Your task to perform on an android device: Open Reddit.com Image 0: 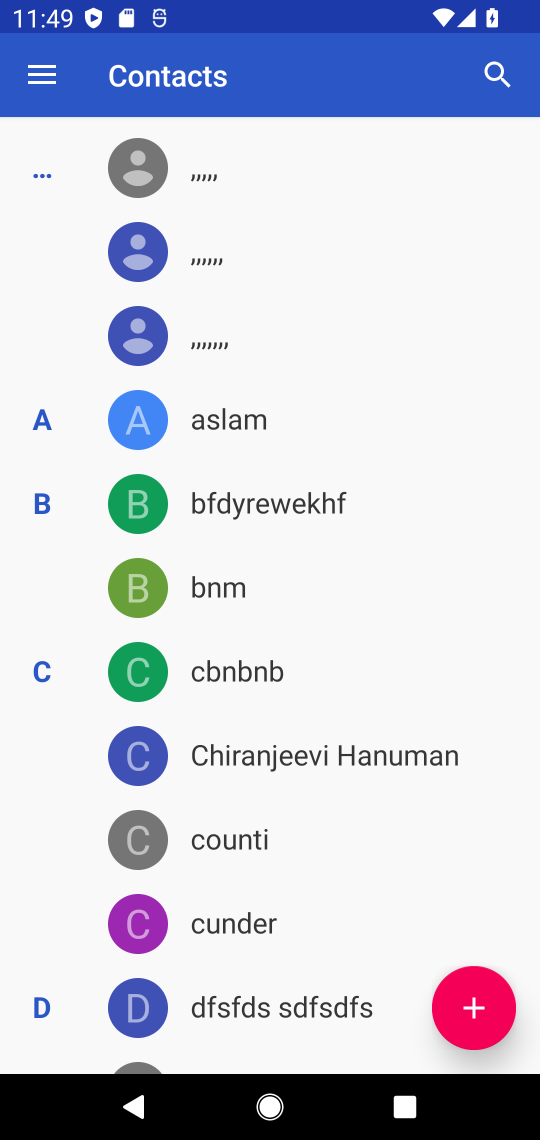
Step 0: press home button
Your task to perform on an android device: Open Reddit.com Image 1: 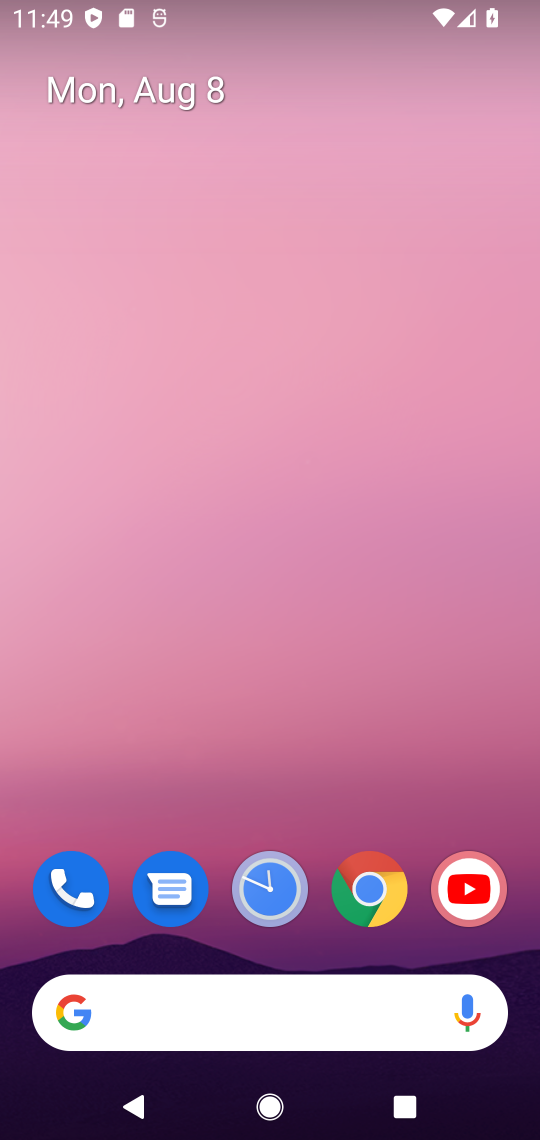
Step 1: click (368, 909)
Your task to perform on an android device: Open Reddit.com Image 2: 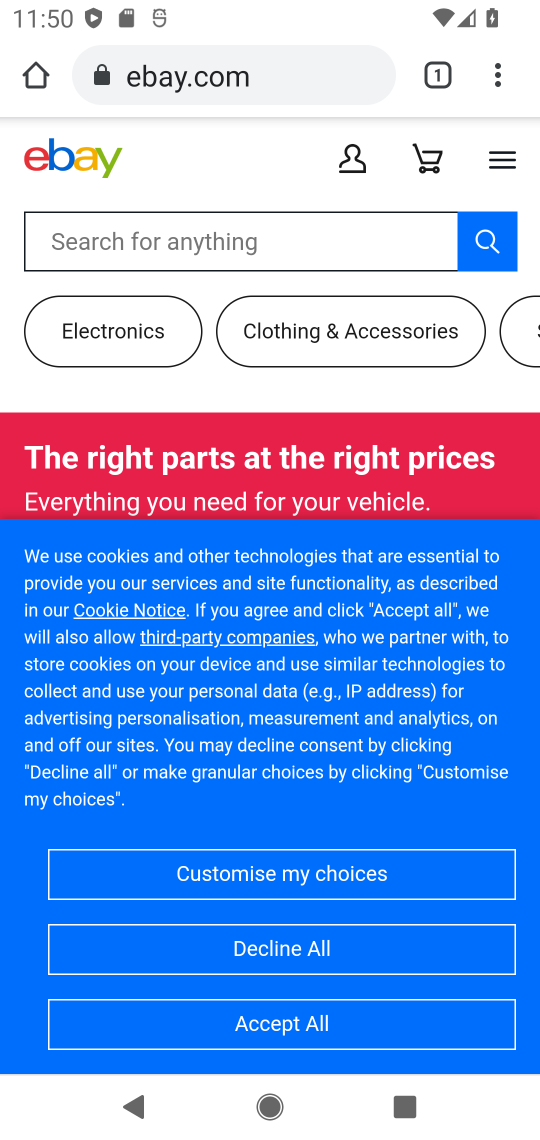
Step 2: click (239, 78)
Your task to perform on an android device: Open Reddit.com Image 3: 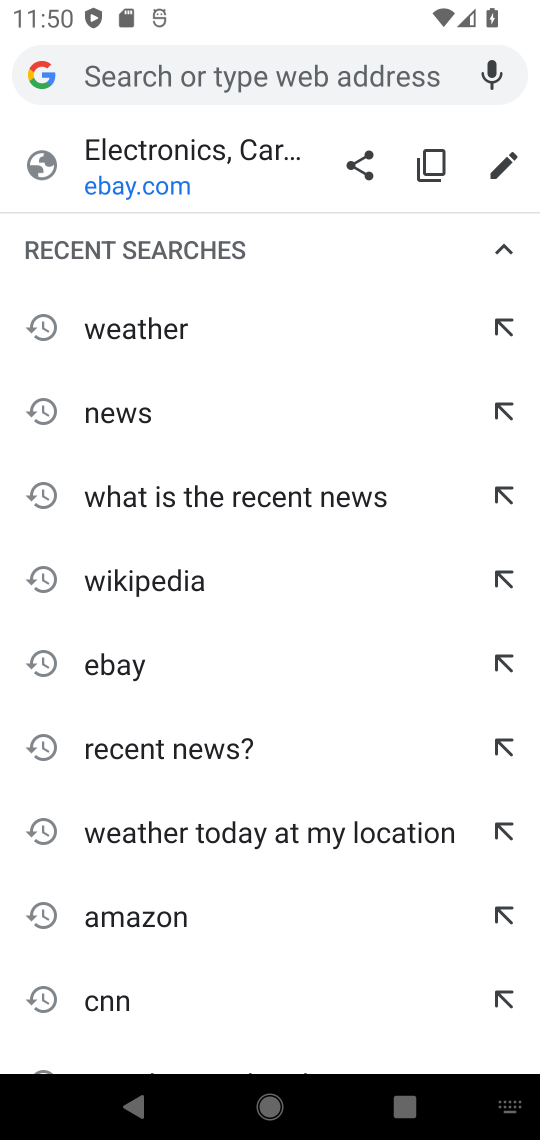
Step 3: type "reddit.com"
Your task to perform on an android device: Open Reddit.com Image 4: 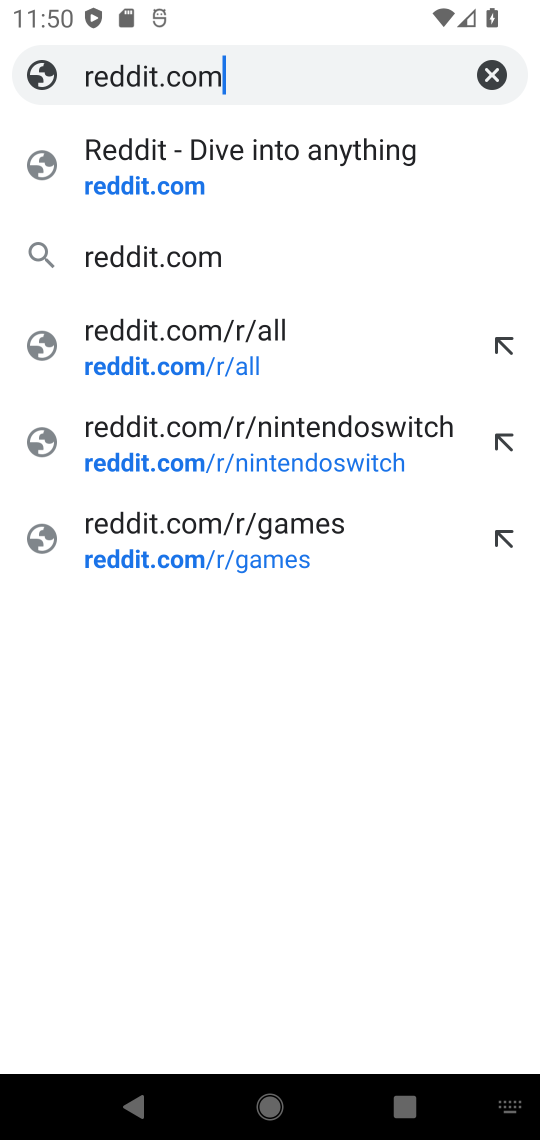
Step 4: click (293, 166)
Your task to perform on an android device: Open Reddit.com Image 5: 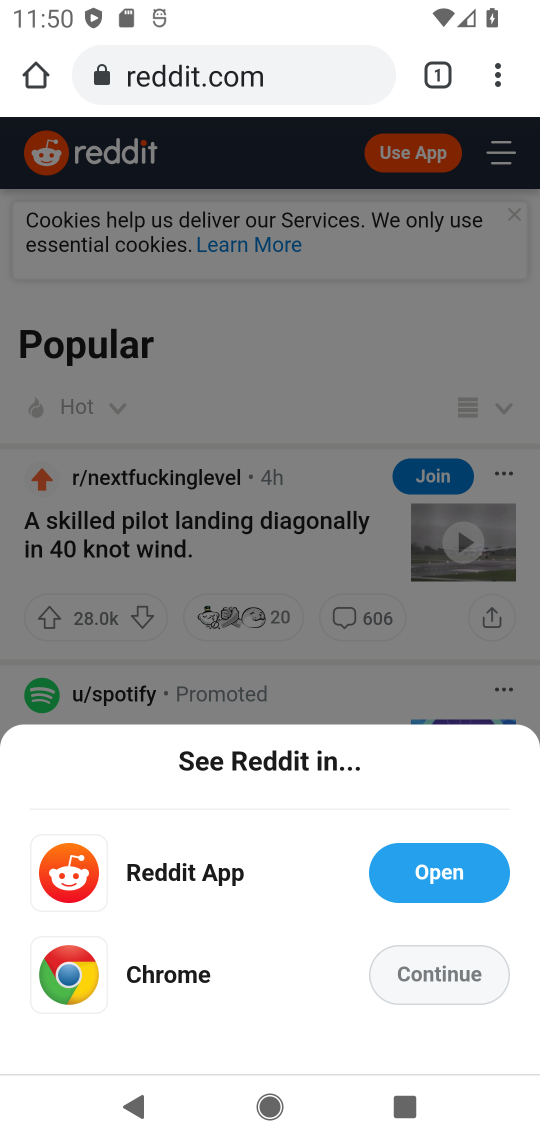
Step 5: click (464, 985)
Your task to perform on an android device: Open Reddit.com Image 6: 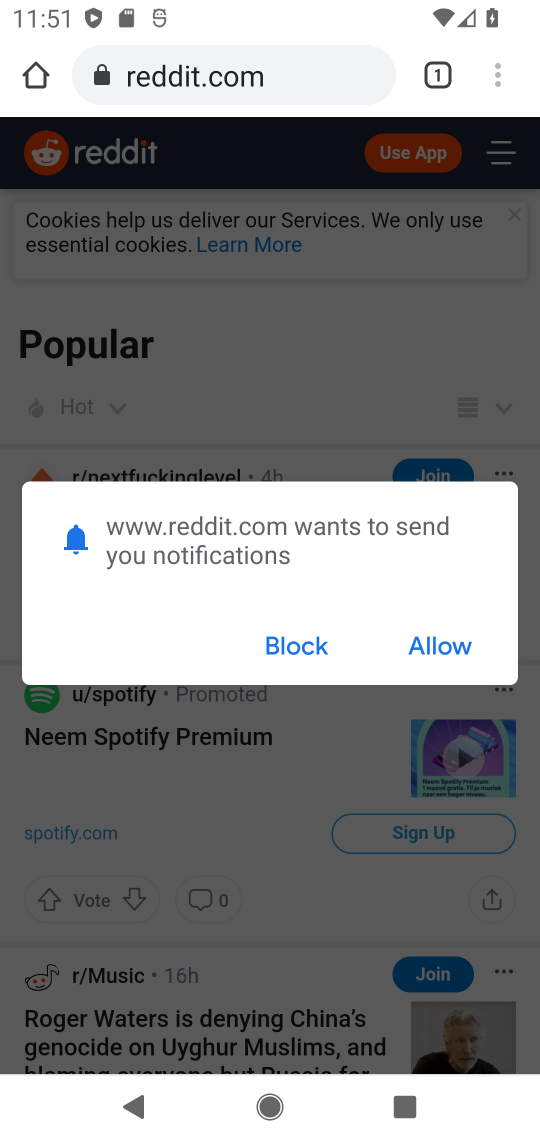
Step 6: click (462, 648)
Your task to perform on an android device: Open Reddit.com Image 7: 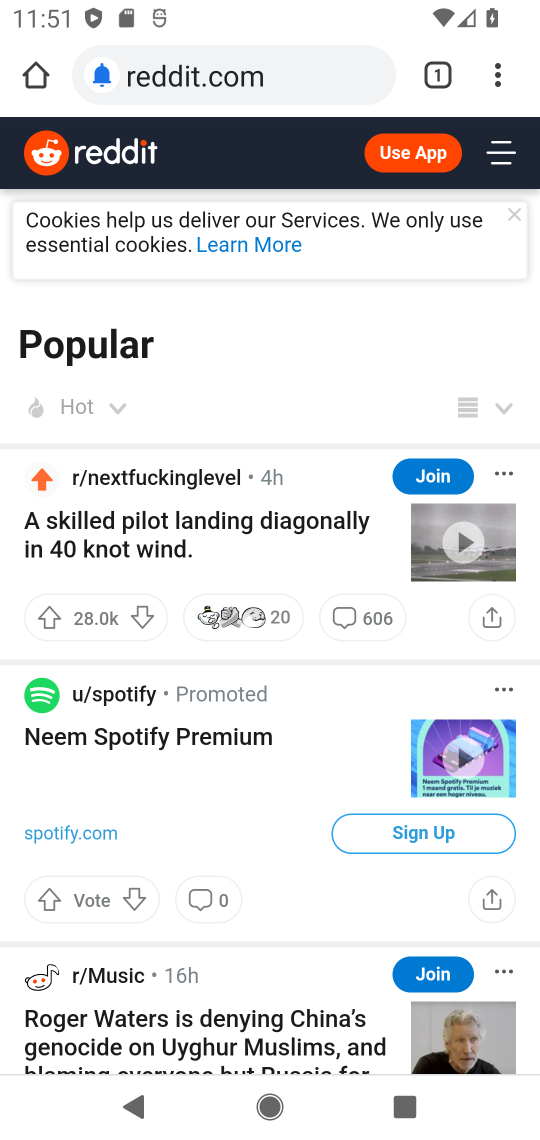
Step 7: task complete